Your task to perform on an android device: change timer sound Image 0: 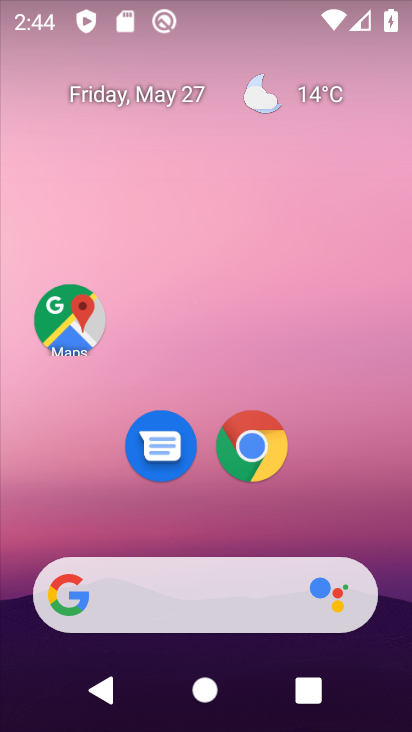
Step 0: press home button
Your task to perform on an android device: change timer sound Image 1: 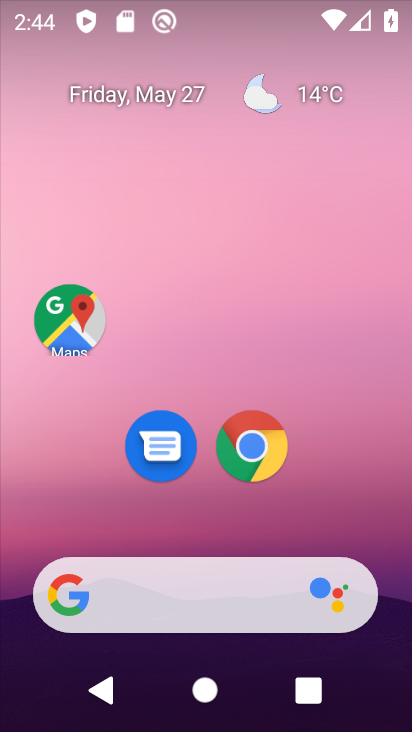
Step 1: drag from (205, 589) to (368, 73)
Your task to perform on an android device: change timer sound Image 2: 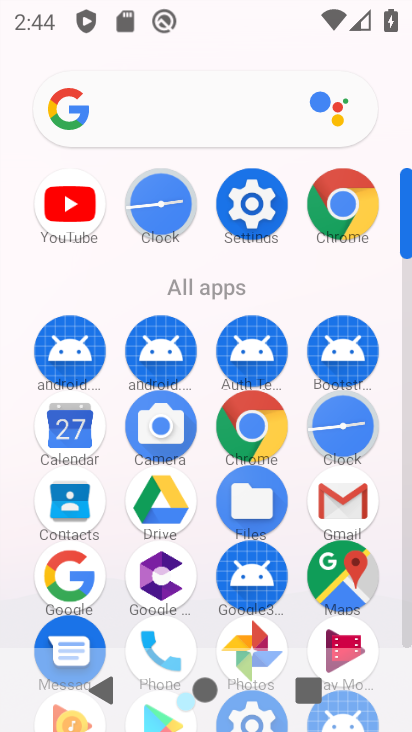
Step 2: click (346, 434)
Your task to perform on an android device: change timer sound Image 3: 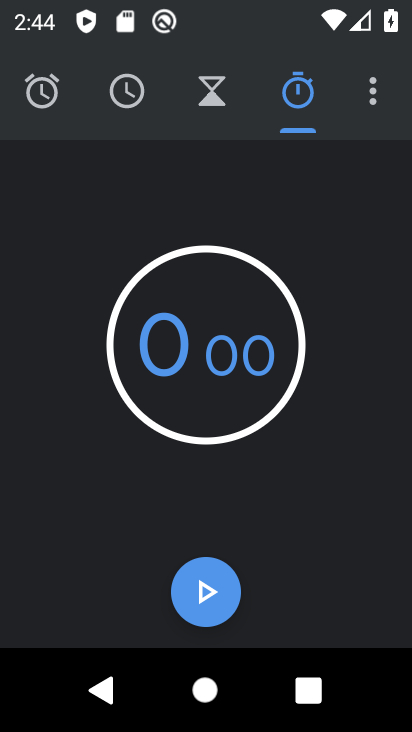
Step 3: click (374, 102)
Your task to perform on an android device: change timer sound Image 4: 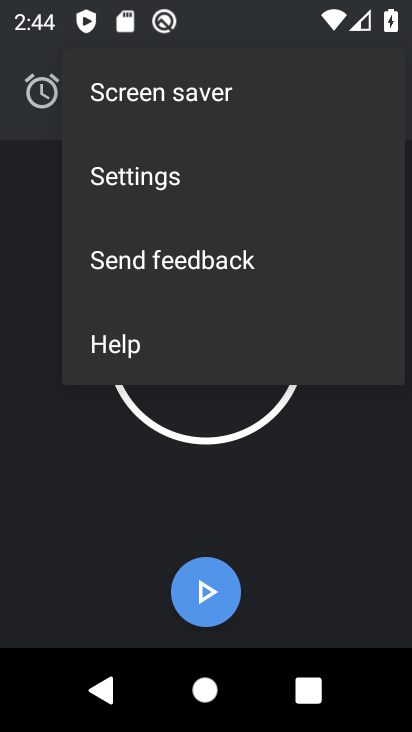
Step 4: click (166, 181)
Your task to perform on an android device: change timer sound Image 5: 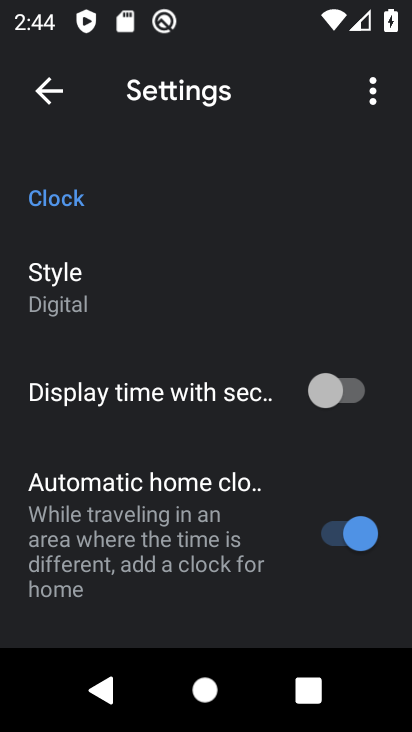
Step 5: drag from (177, 594) to (346, 80)
Your task to perform on an android device: change timer sound Image 6: 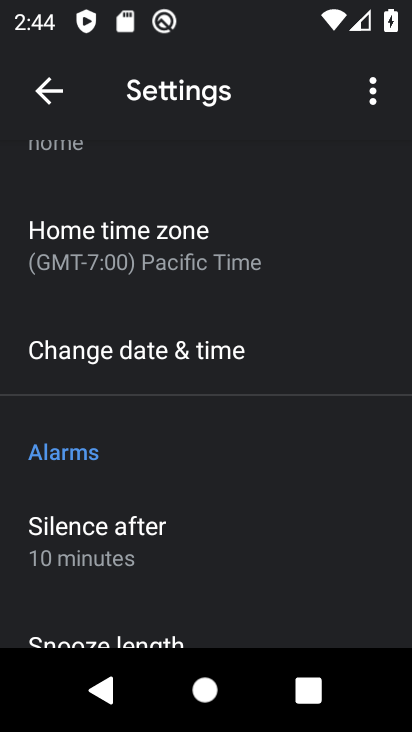
Step 6: drag from (223, 492) to (360, 148)
Your task to perform on an android device: change timer sound Image 7: 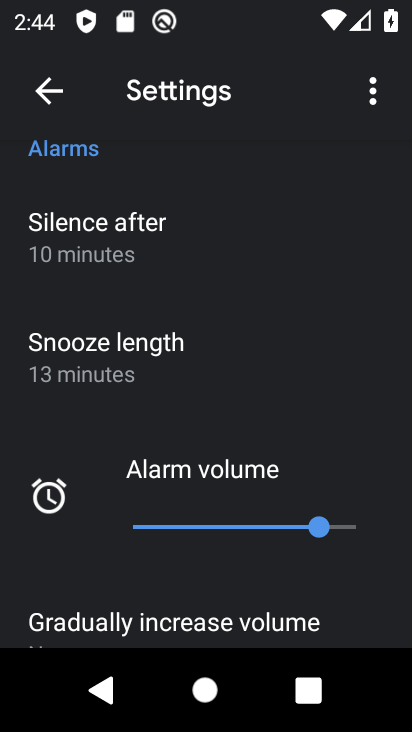
Step 7: drag from (238, 570) to (345, 166)
Your task to perform on an android device: change timer sound Image 8: 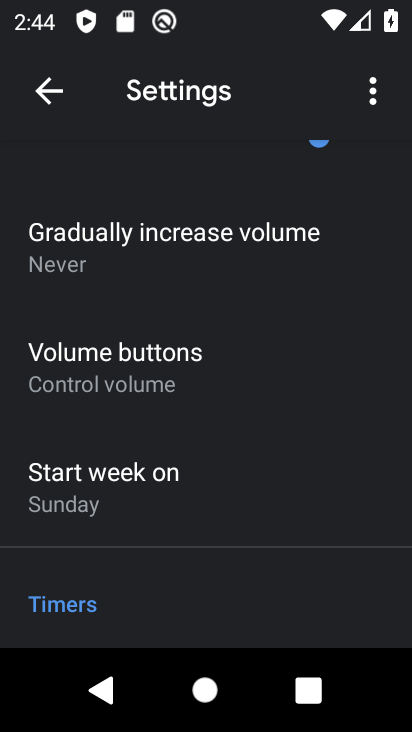
Step 8: drag from (200, 536) to (342, 131)
Your task to perform on an android device: change timer sound Image 9: 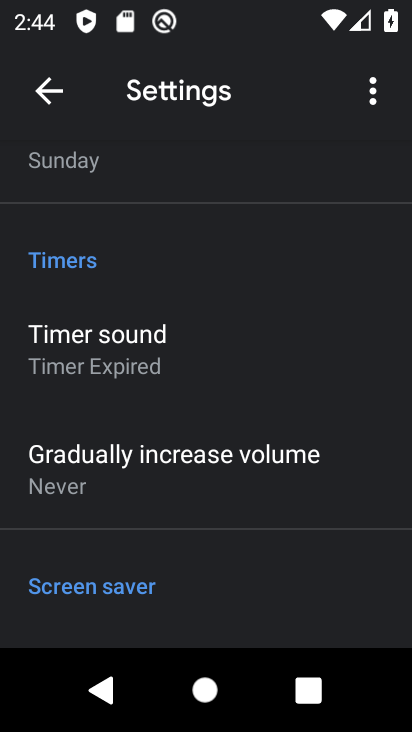
Step 9: click (148, 349)
Your task to perform on an android device: change timer sound Image 10: 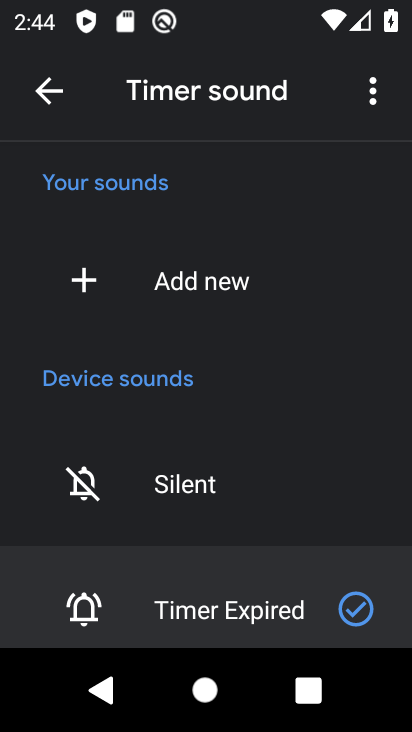
Step 10: drag from (233, 490) to (406, 65)
Your task to perform on an android device: change timer sound Image 11: 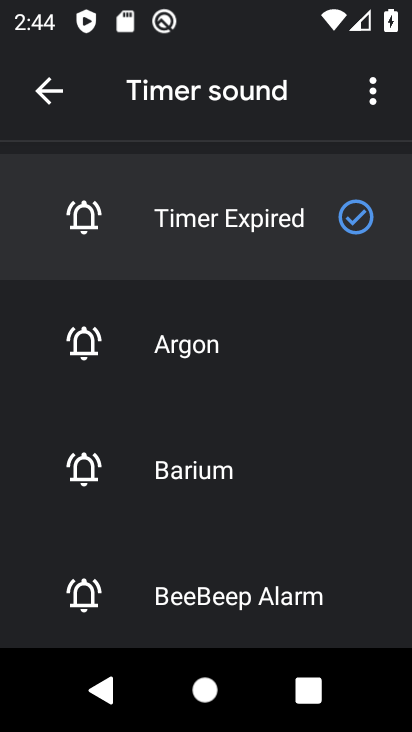
Step 11: click (219, 469)
Your task to perform on an android device: change timer sound Image 12: 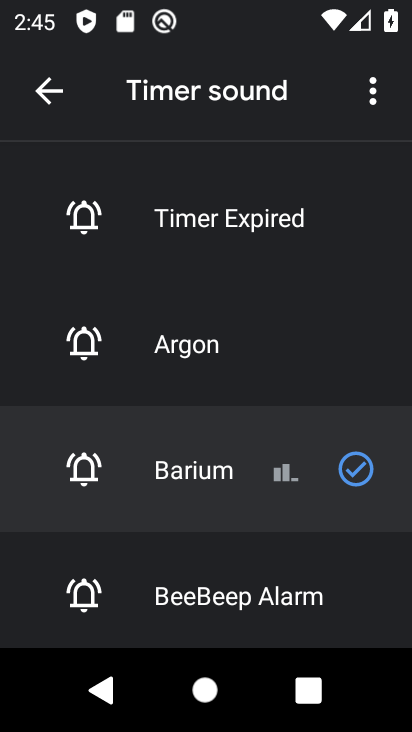
Step 12: task complete